Your task to perform on an android device: empty trash in google photos Image 0: 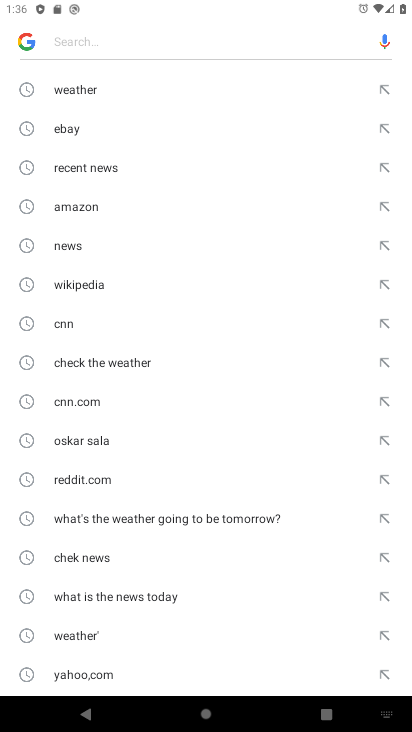
Step 0: press home button
Your task to perform on an android device: empty trash in google photos Image 1: 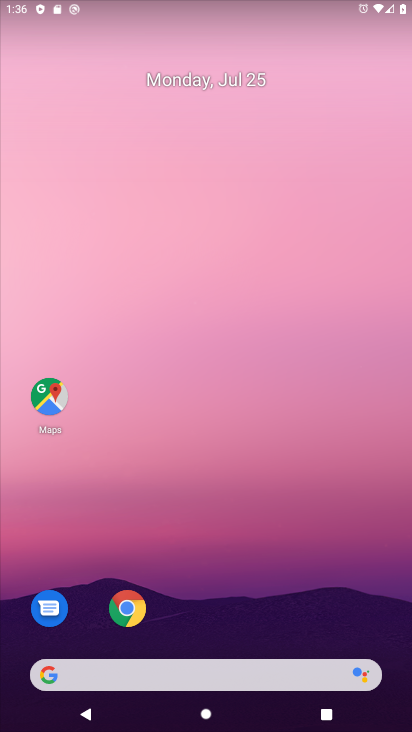
Step 1: drag from (245, 503) to (217, 84)
Your task to perform on an android device: empty trash in google photos Image 2: 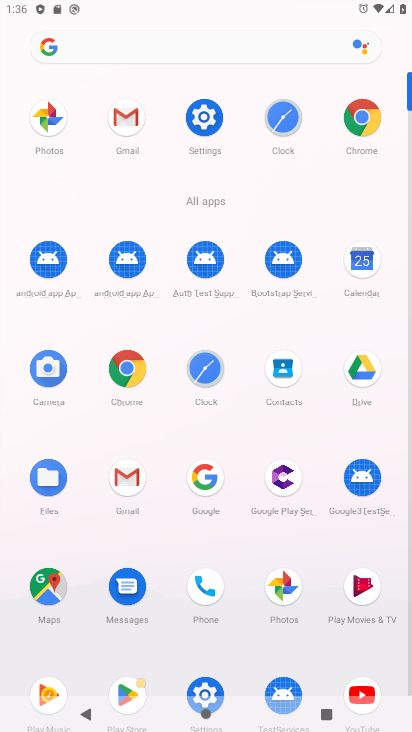
Step 2: click (54, 116)
Your task to perform on an android device: empty trash in google photos Image 3: 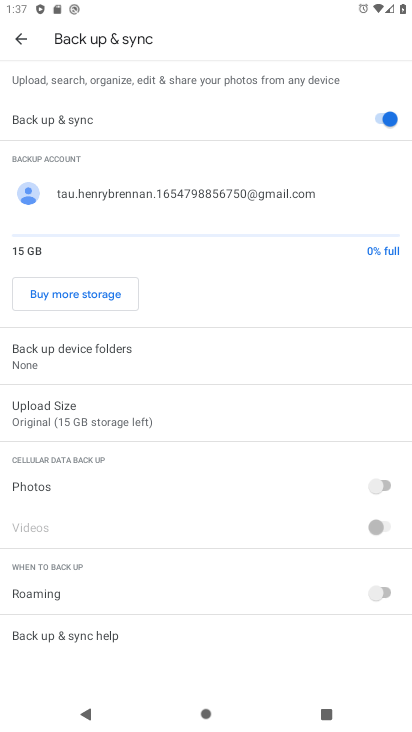
Step 3: click (21, 45)
Your task to perform on an android device: empty trash in google photos Image 4: 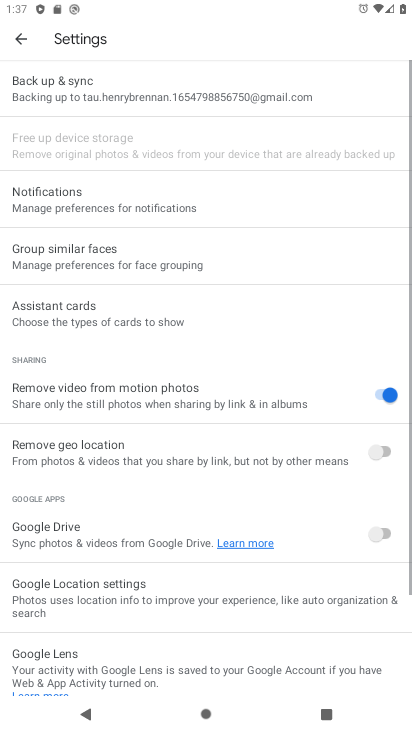
Step 4: click (27, 53)
Your task to perform on an android device: empty trash in google photos Image 5: 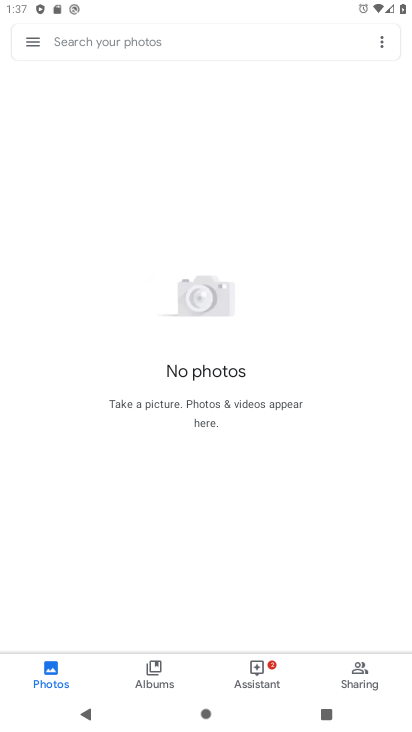
Step 5: click (39, 43)
Your task to perform on an android device: empty trash in google photos Image 6: 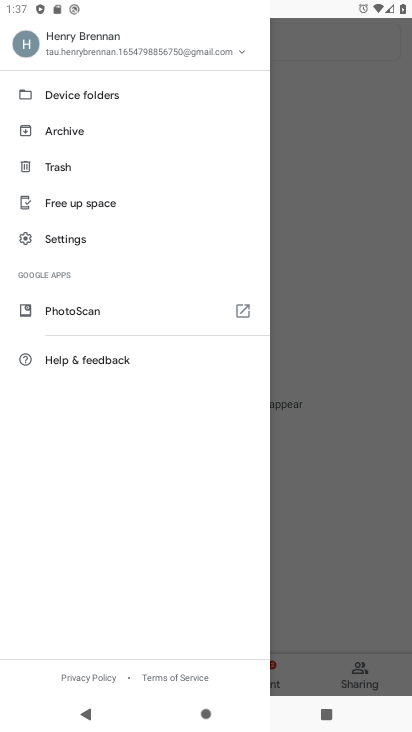
Step 6: click (69, 174)
Your task to perform on an android device: empty trash in google photos Image 7: 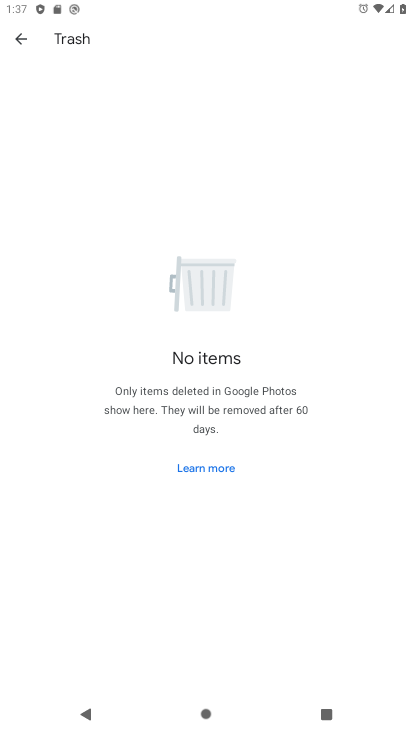
Step 7: task complete